Your task to perform on an android device: set the timer Image 0: 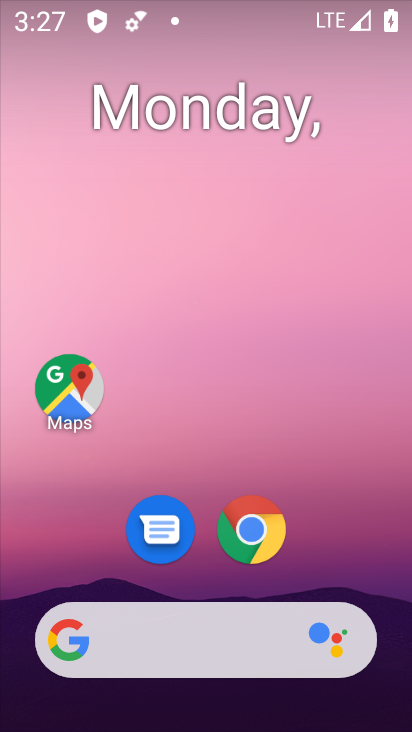
Step 0: drag from (259, 565) to (348, 120)
Your task to perform on an android device: set the timer Image 1: 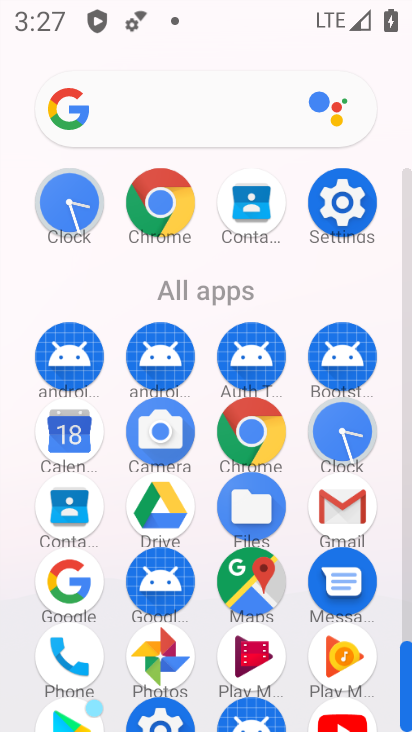
Step 1: click (343, 435)
Your task to perform on an android device: set the timer Image 2: 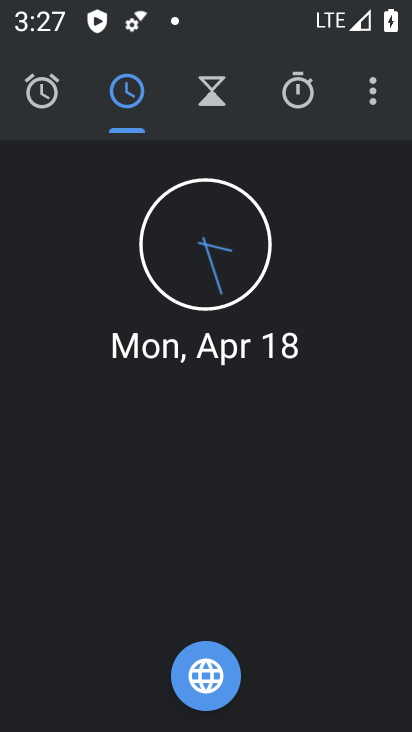
Step 2: click (214, 90)
Your task to perform on an android device: set the timer Image 3: 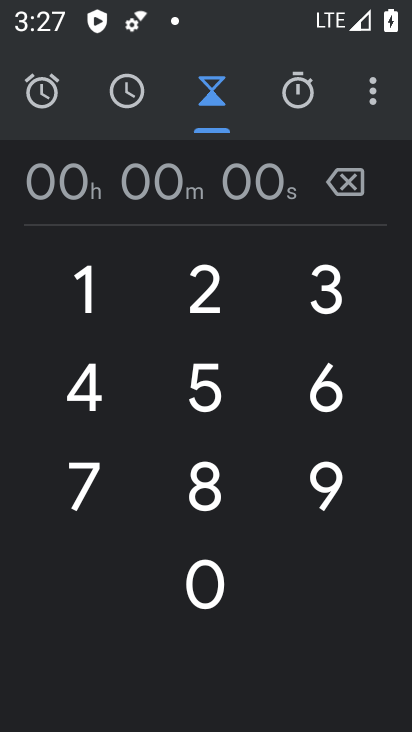
Step 3: click (88, 477)
Your task to perform on an android device: set the timer Image 4: 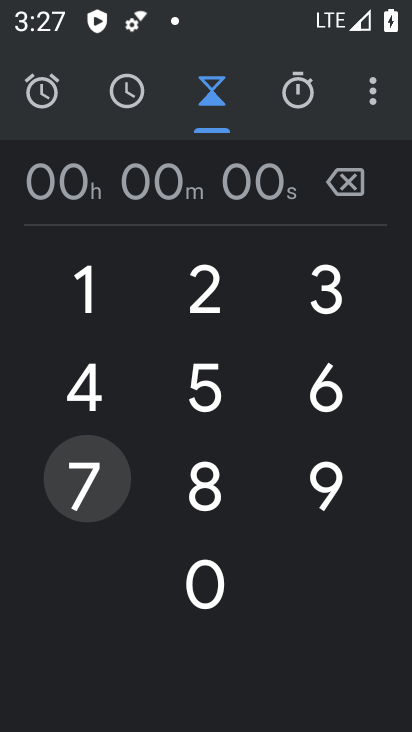
Step 4: click (192, 373)
Your task to perform on an android device: set the timer Image 5: 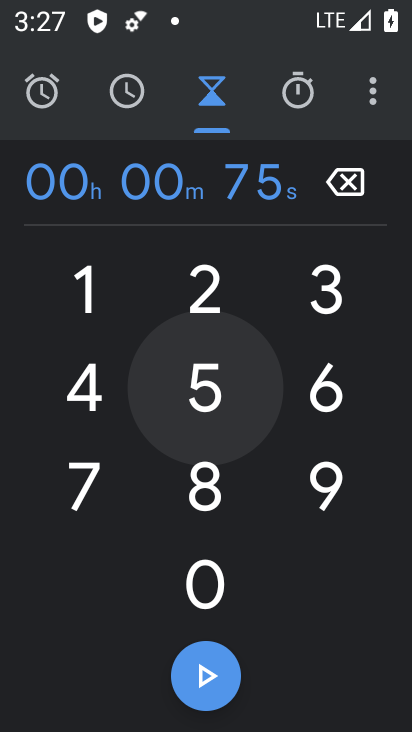
Step 5: click (224, 307)
Your task to perform on an android device: set the timer Image 6: 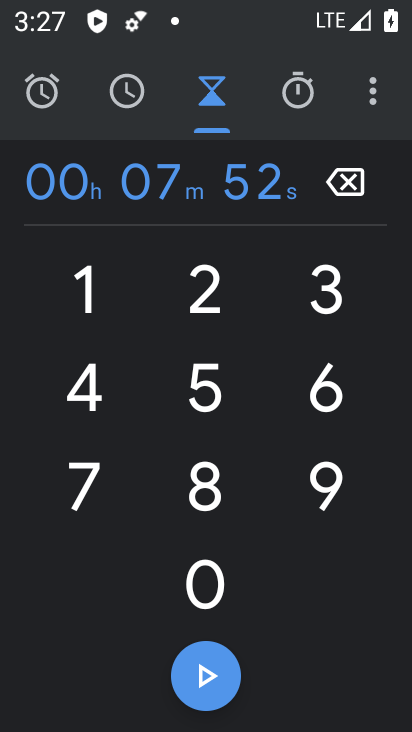
Step 6: click (208, 669)
Your task to perform on an android device: set the timer Image 7: 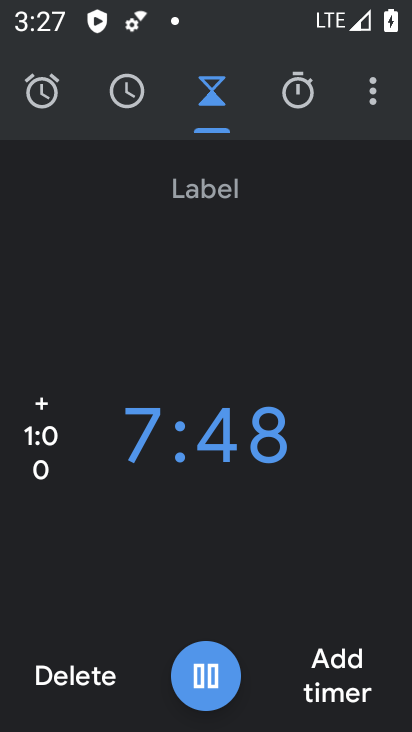
Step 7: task complete